Your task to perform on an android device: Open maps Image 0: 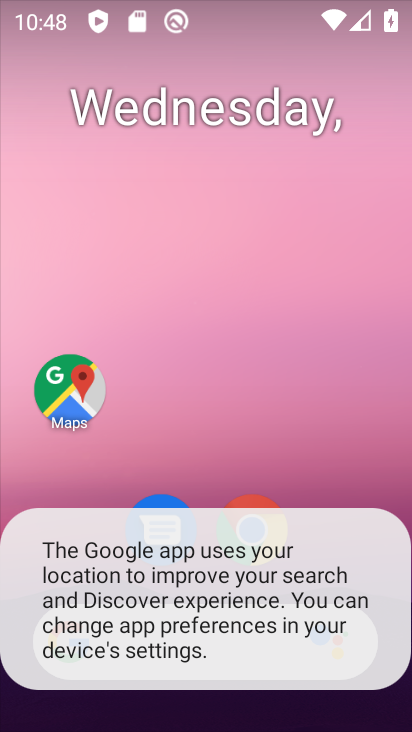
Step 0: click (344, 471)
Your task to perform on an android device: Open maps Image 1: 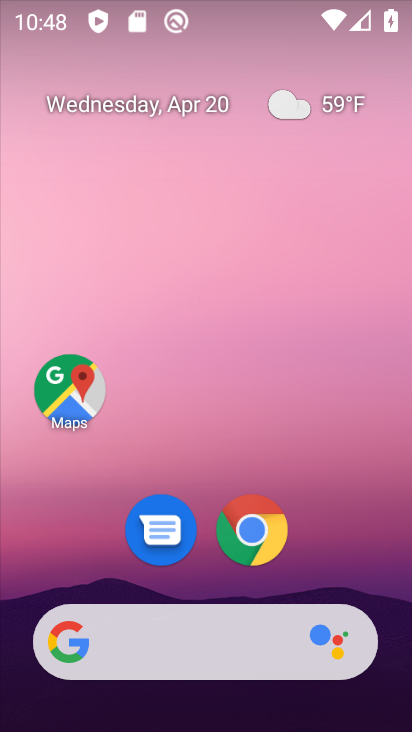
Step 1: click (91, 401)
Your task to perform on an android device: Open maps Image 2: 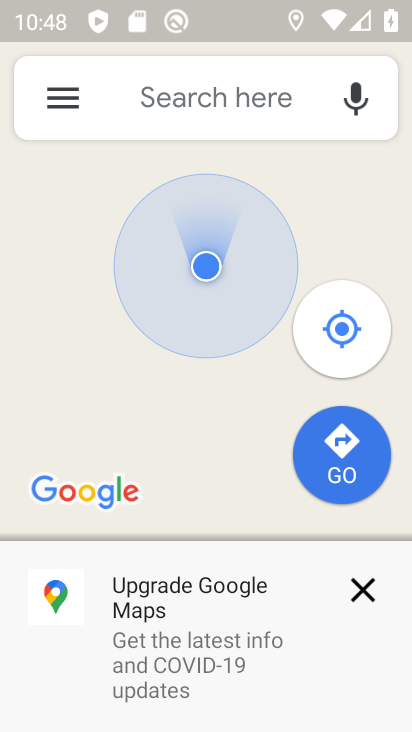
Step 2: task complete